Your task to perform on an android device: Go to network settings Image 0: 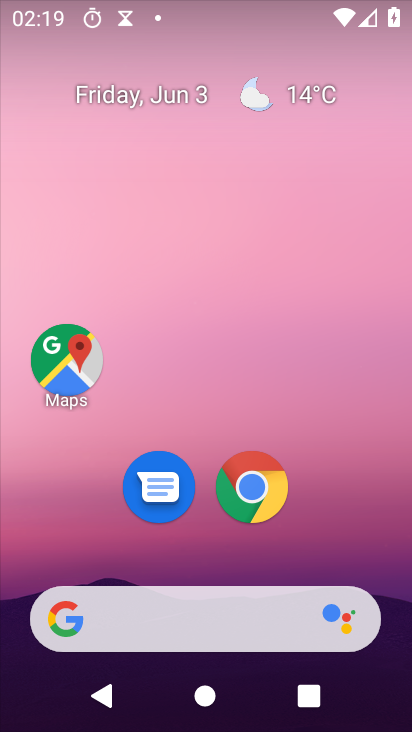
Step 0: drag from (309, 489) to (175, 28)
Your task to perform on an android device: Go to network settings Image 1: 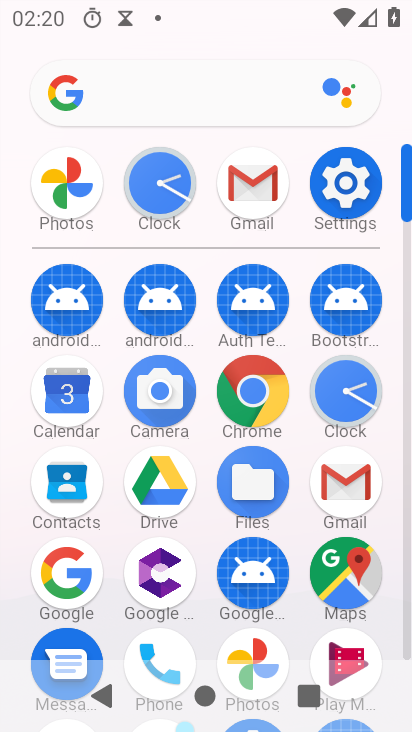
Step 1: click (355, 195)
Your task to perform on an android device: Go to network settings Image 2: 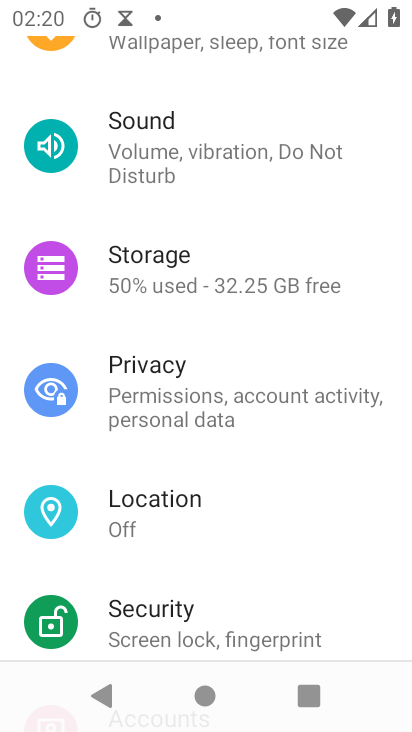
Step 2: drag from (229, 171) to (226, 584)
Your task to perform on an android device: Go to network settings Image 3: 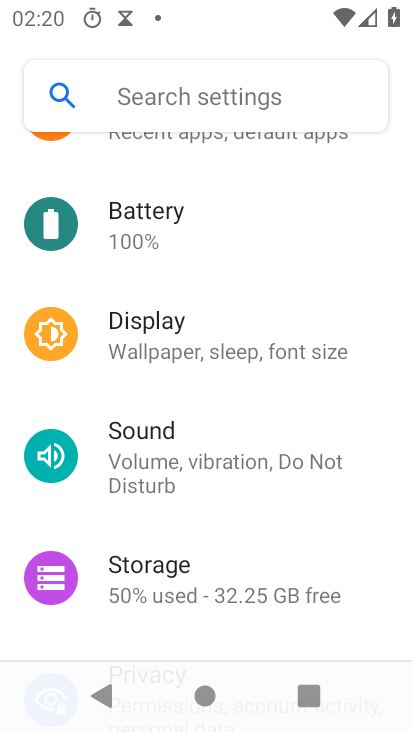
Step 3: drag from (258, 239) to (247, 607)
Your task to perform on an android device: Go to network settings Image 4: 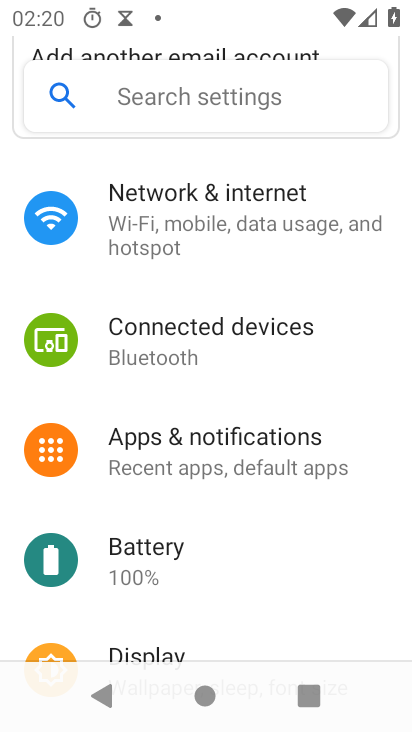
Step 4: click (195, 212)
Your task to perform on an android device: Go to network settings Image 5: 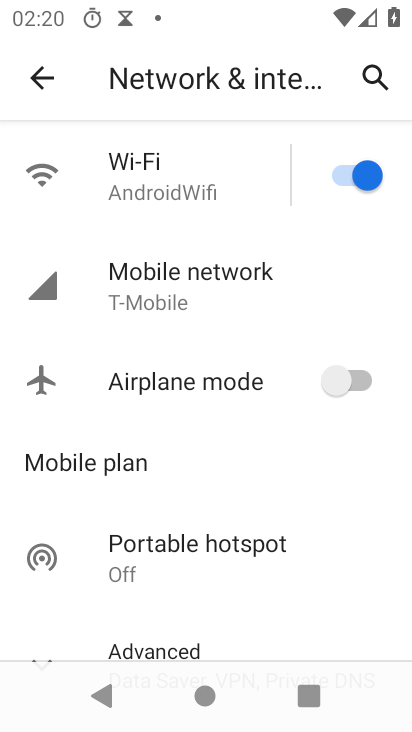
Step 5: task complete